Your task to perform on an android device: Go to Android settings Image 0: 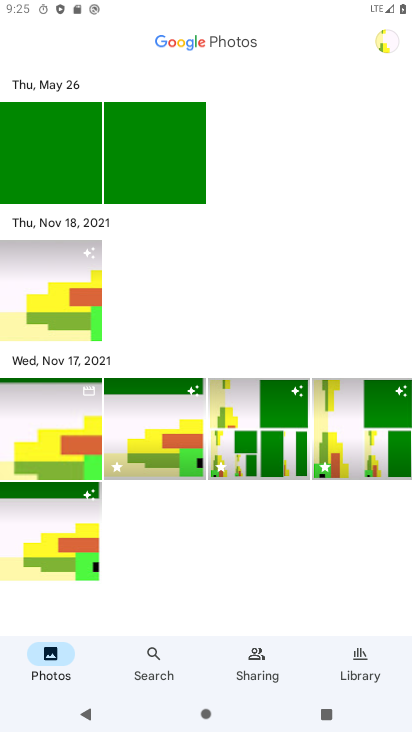
Step 0: press home button
Your task to perform on an android device: Go to Android settings Image 1: 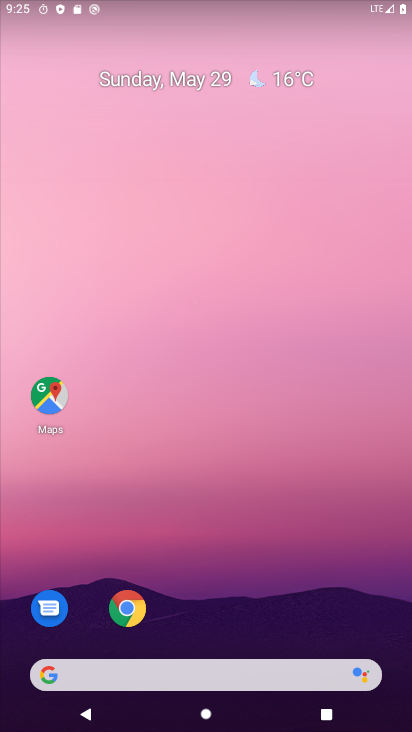
Step 1: drag from (206, 626) to (346, 0)
Your task to perform on an android device: Go to Android settings Image 2: 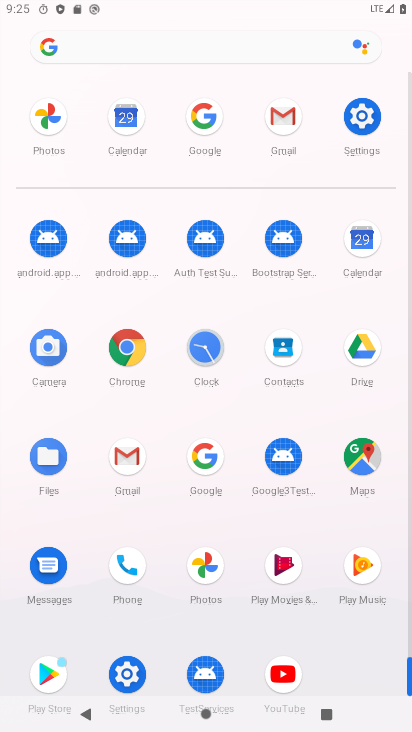
Step 2: click (355, 131)
Your task to perform on an android device: Go to Android settings Image 3: 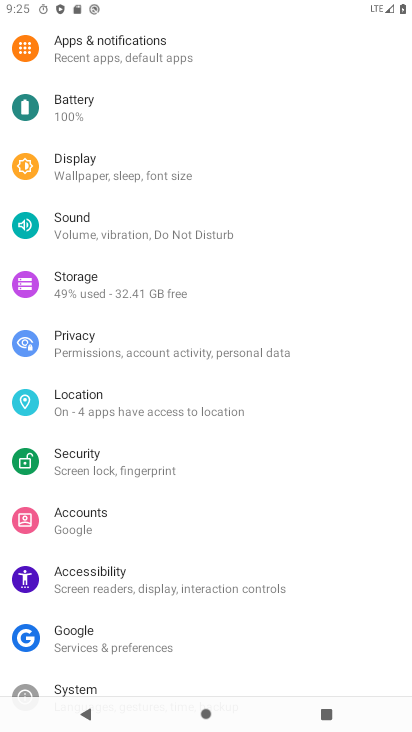
Step 3: drag from (123, 665) to (123, 176)
Your task to perform on an android device: Go to Android settings Image 4: 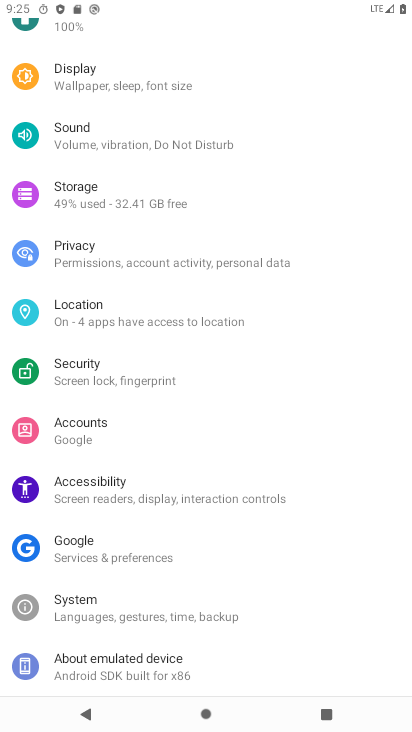
Step 4: click (87, 663)
Your task to perform on an android device: Go to Android settings Image 5: 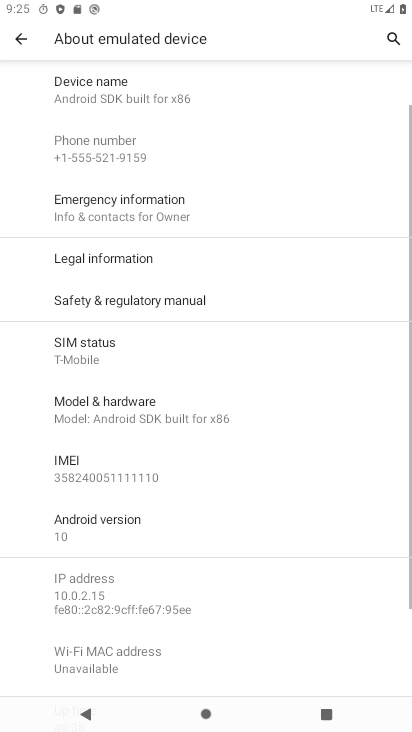
Step 5: click (115, 518)
Your task to perform on an android device: Go to Android settings Image 6: 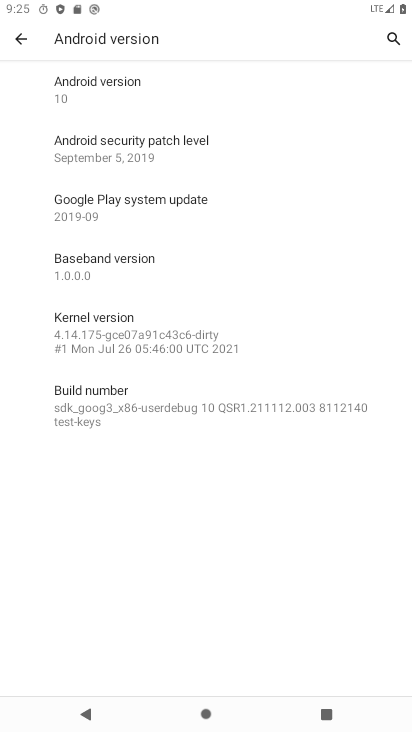
Step 6: task complete